Your task to perform on an android device: Search for vegetarian restaurants on Maps Image 0: 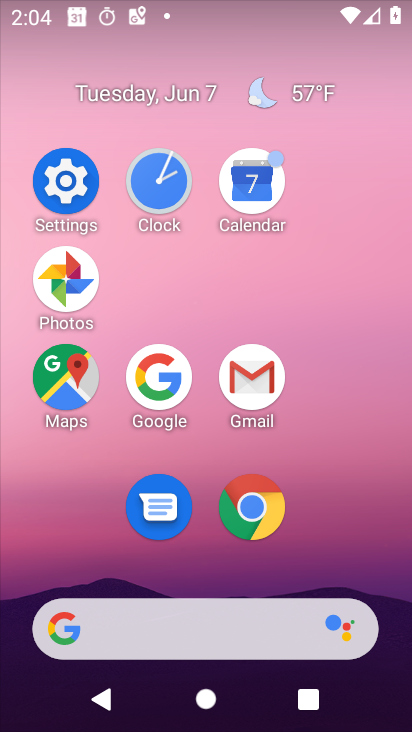
Step 0: click (76, 375)
Your task to perform on an android device: Search for vegetarian restaurants on Maps Image 1: 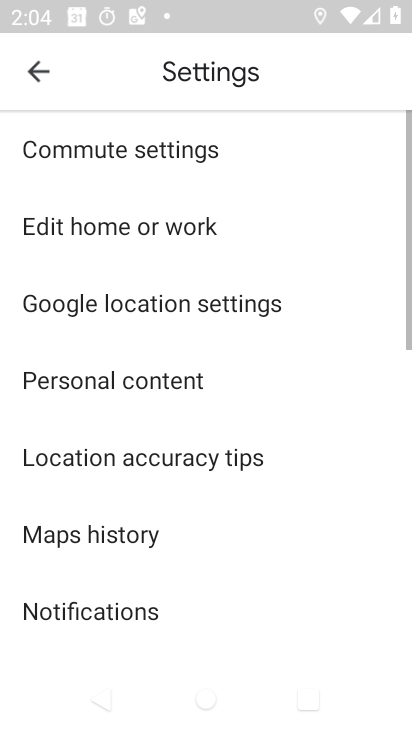
Step 1: click (55, 71)
Your task to perform on an android device: Search for vegetarian restaurants on Maps Image 2: 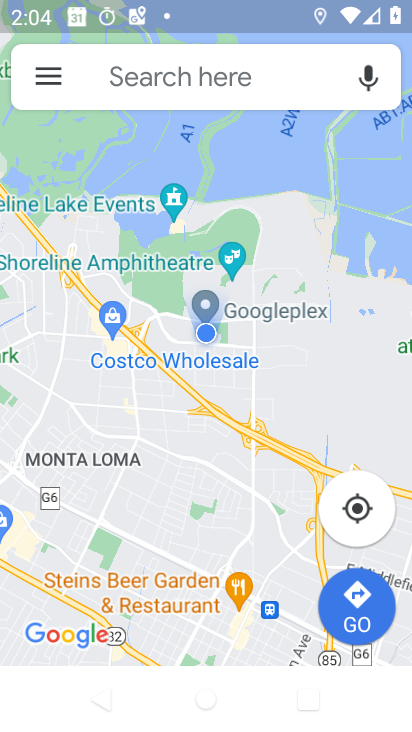
Step 2: click (261, 82)
Your task to perform on an android device: Search for vegetarian restaurants on Maps Image 3: 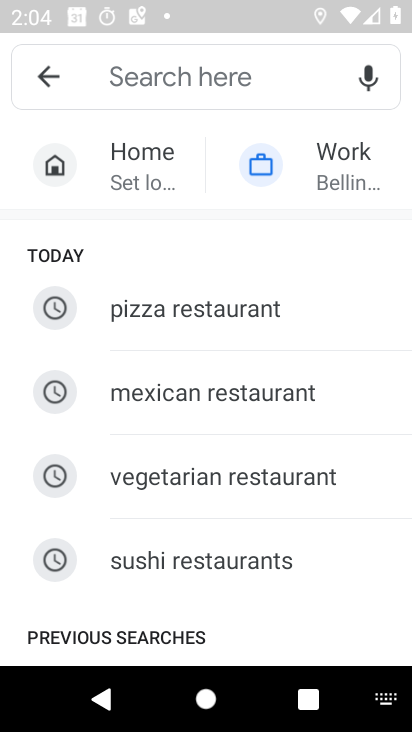
Step 3: click (266, 479)
Your task to perform on an android device: Search for vegetarian restaurants on Maps Image 4: 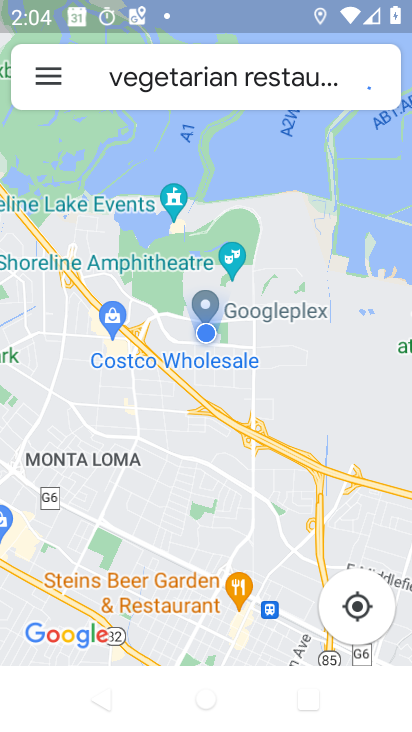
Step 4: task complete